Your task to perform on an android device: check google app version Image 0: 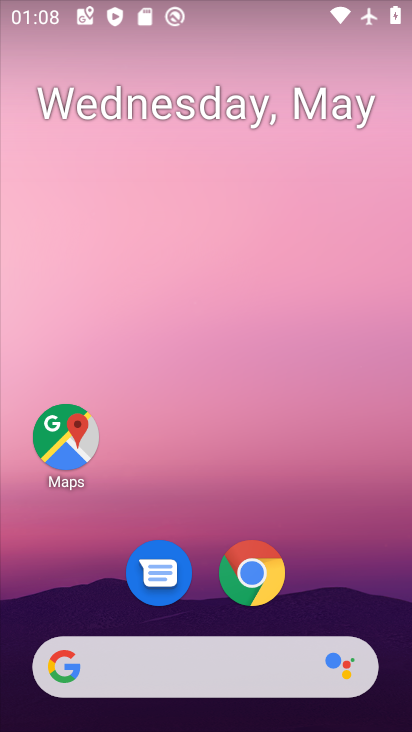
Step 0: drag from (322, 582) to (291, 199)
Your task to perform on an android device: check google app version Image 1: 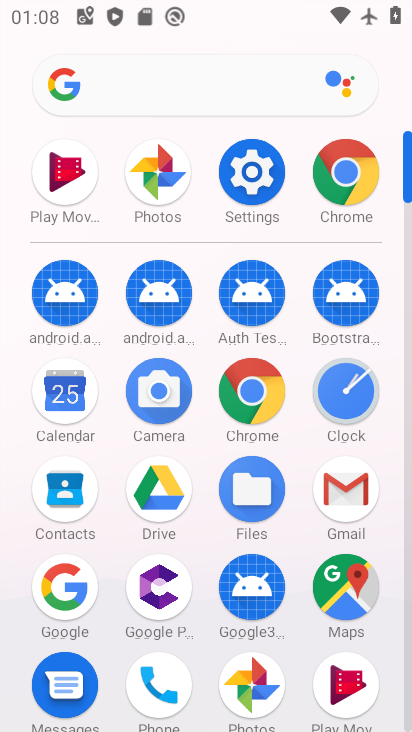
Step 1: click (73, 587)
Your task to perform on an android device: check google app version Image 2: 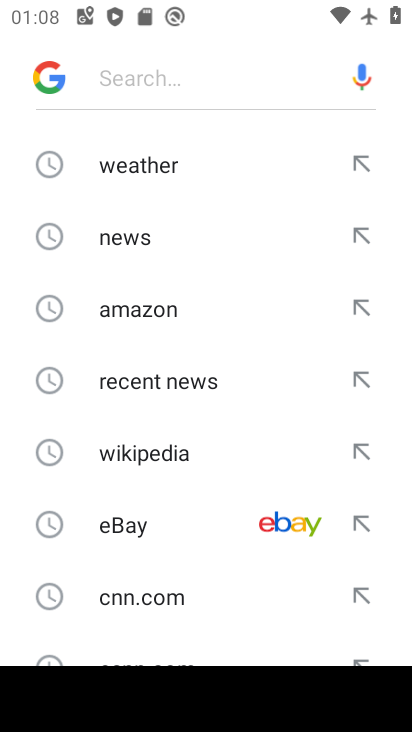
Step 2: click (49, 69)
Your task to perform on an android device: check google app version Image 3: 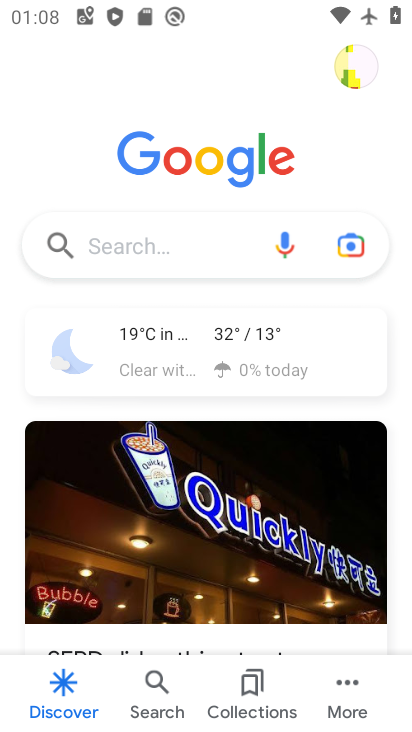
Step 3: click (360, 677)
Your task to perform on an android device: check google app version Image 4: 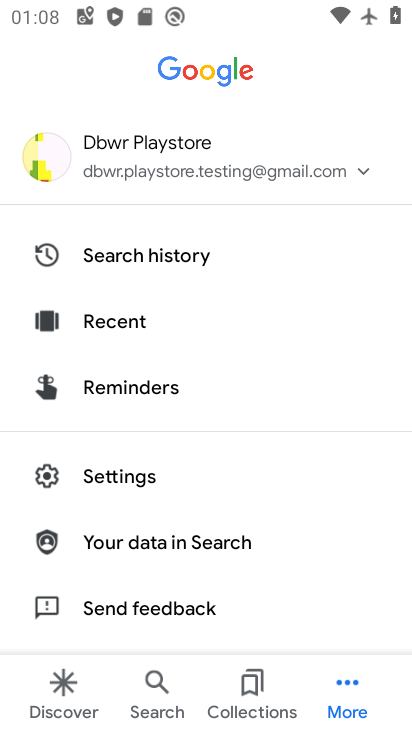
Step 4: click (133, 483)
Your task to perform on an android device: check google app version Image 5: 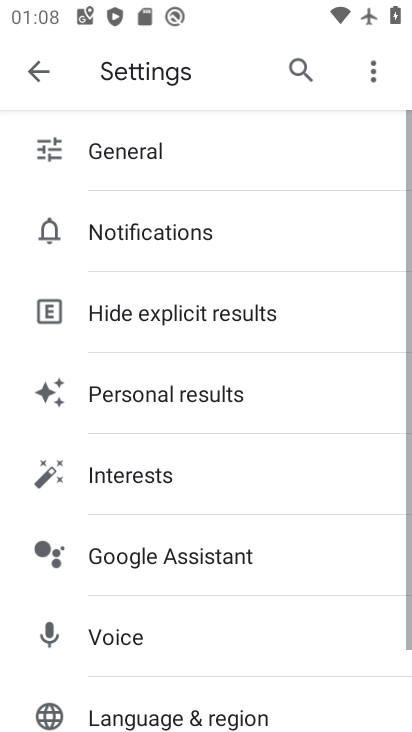
Step 5: drag from (202, 616) to (189, 311)
Your task to perform on an android device: check google app version Image 6: 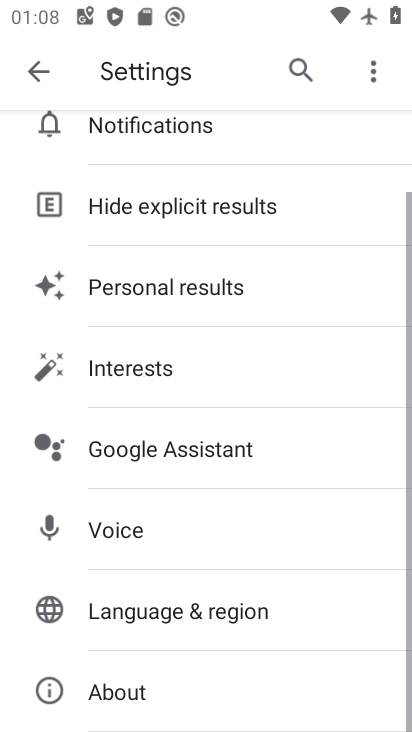
Step 6: click (144, 693)
Your task to perform on an android device: check google app version Image 7: 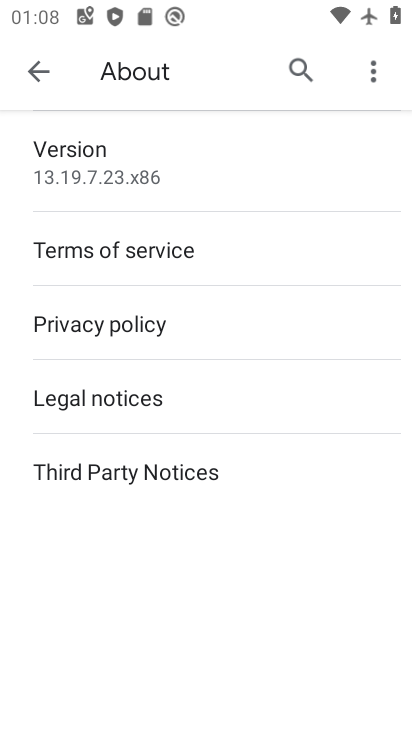
Step 7: task complete